Your task to perform on an android device: Search for Italian restaurants on Maps Image 0: 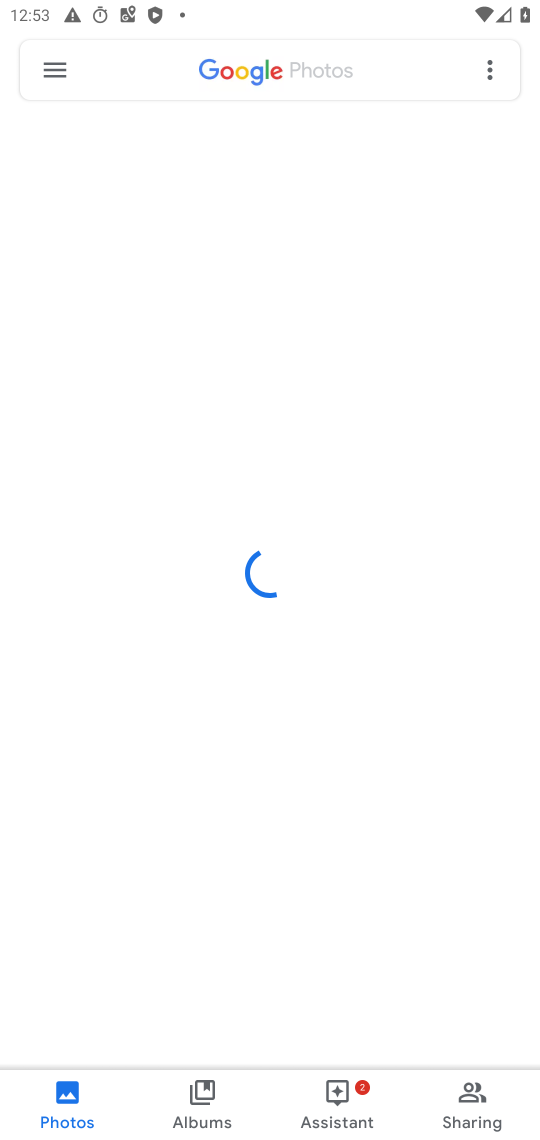
Step 0: press home button
Your task to perform on an android device: Search for Italian restaurants on Maps Image 1: 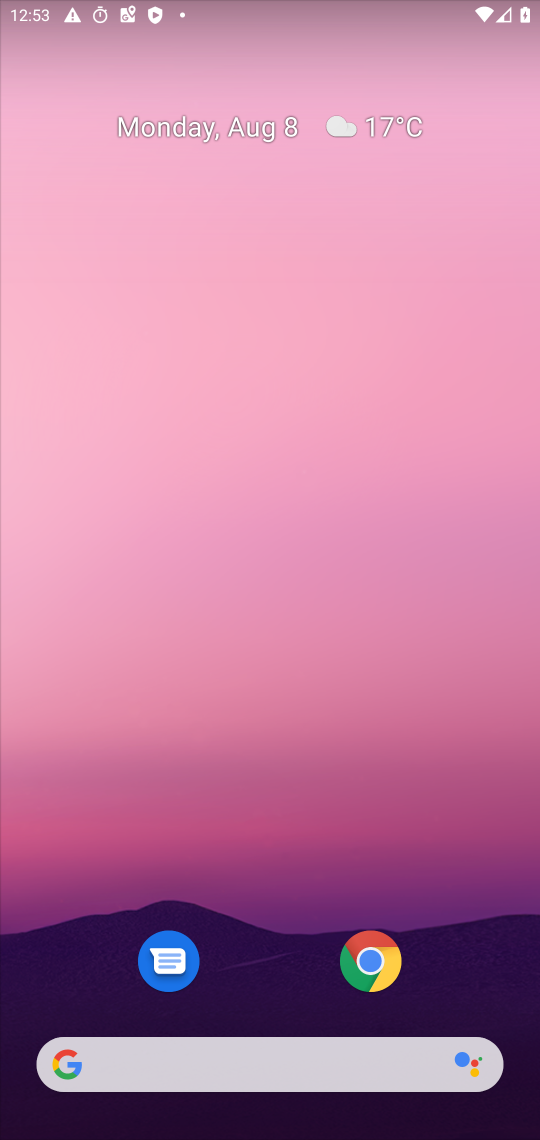
Step 1: drag from (232, 1028) to (261, 5)
Your task to perform on an android device: Search for Italian restaurants on Maps Image 2: 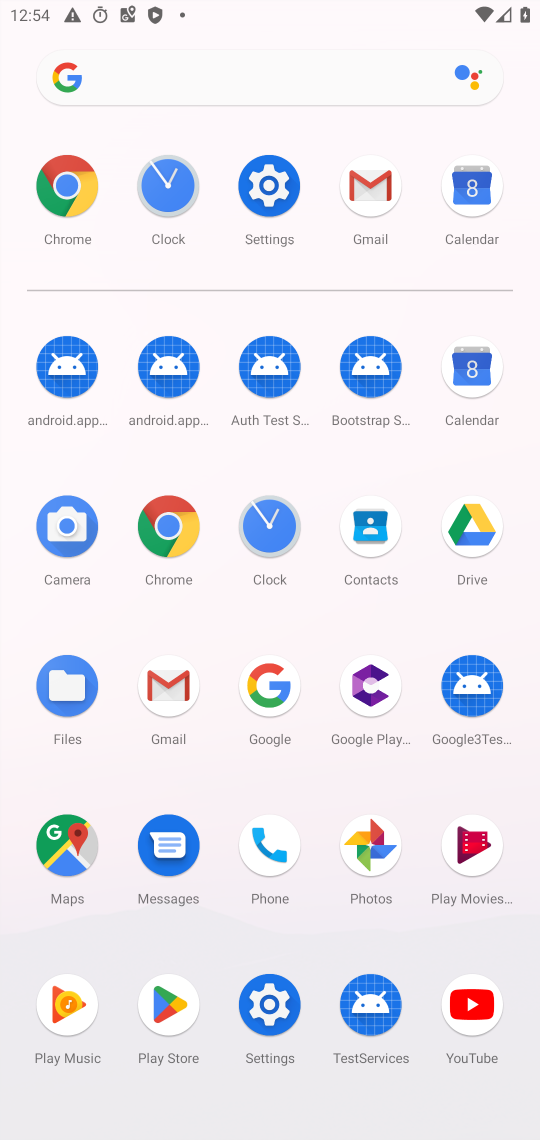
Step 2: click (85, 863)
Your task to perform on an android device: Search for Italian restaurants on Maps Image 3: 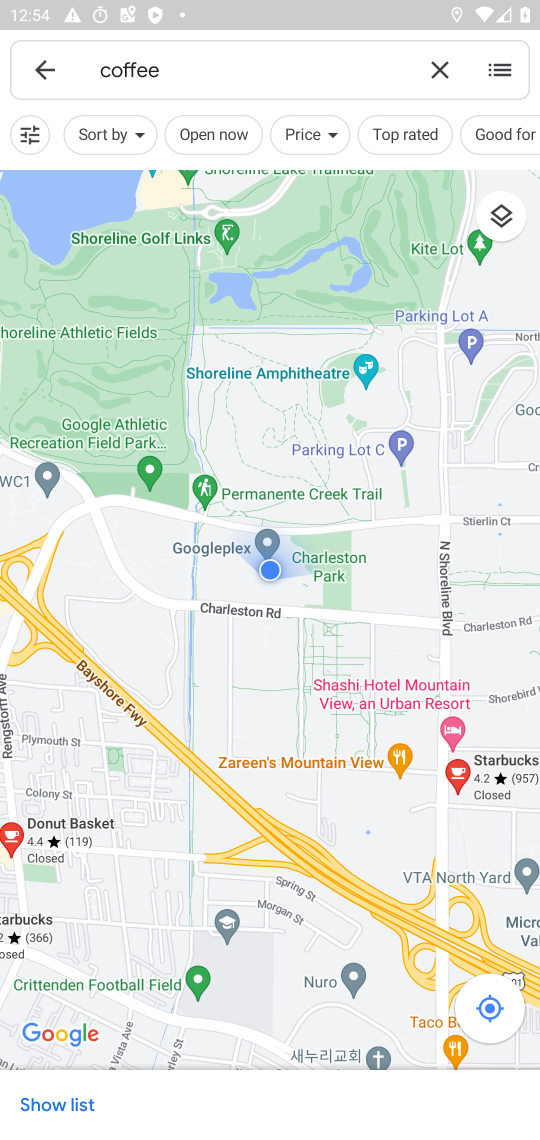
Step 3: click (439, 60)
Your task to perform on an android device: Search for Italian restaurants on Maps Image 4: 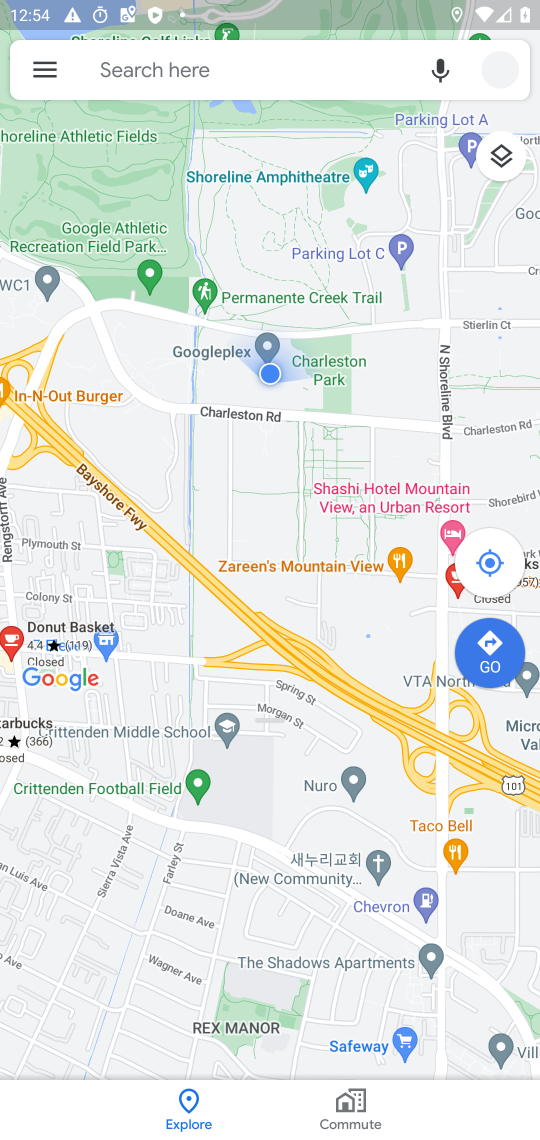
Step 4: click (304, 62)
Your task to perform on an android device: Search for Italian restaurants on Maps Image 5: 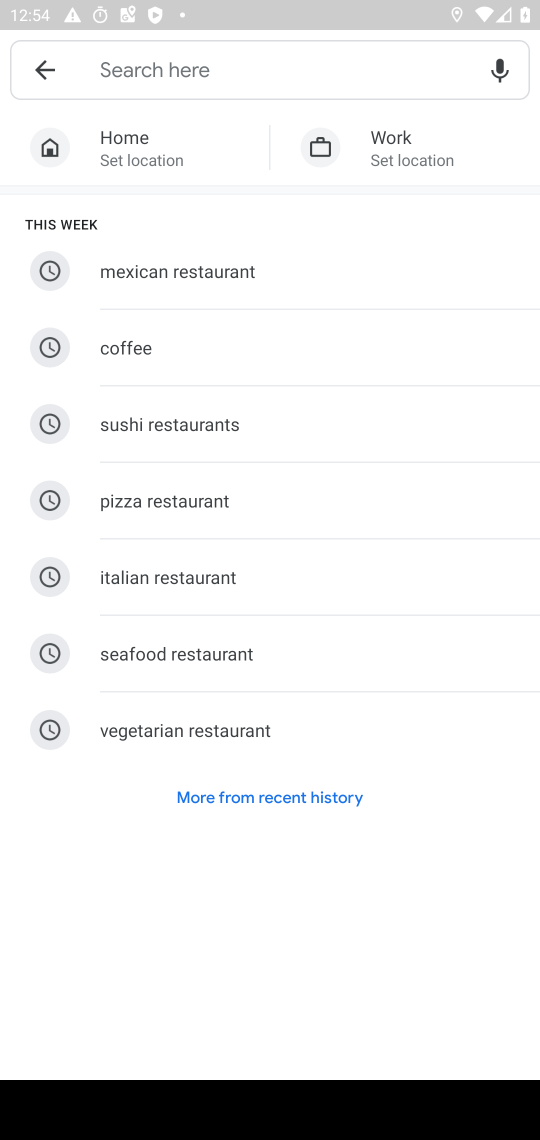
Step 5: click (193, 569)
Your task to perform on an android device: Search for Italian restaurants on Maps Image 6: 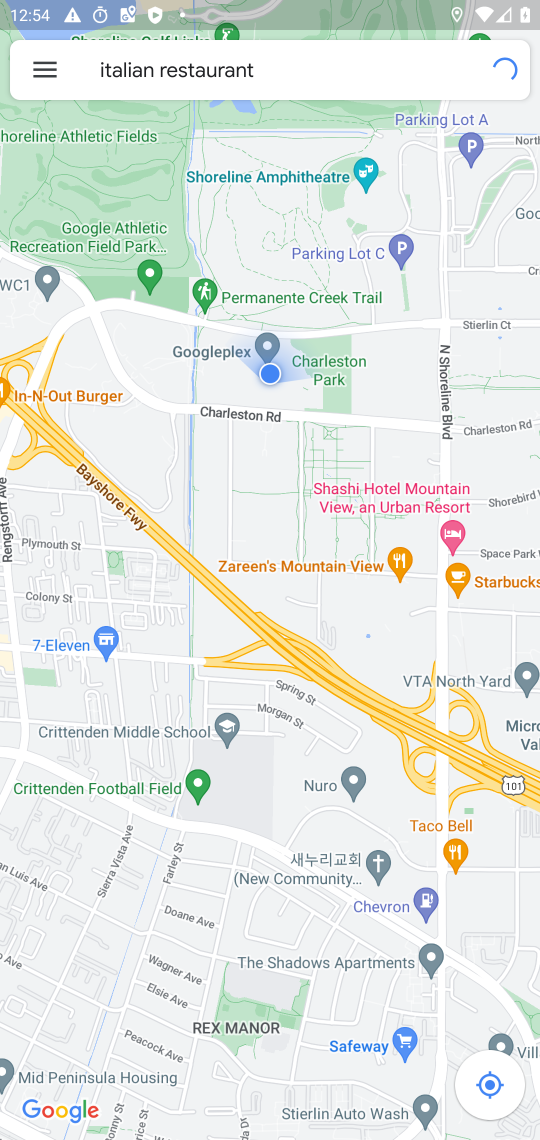
Step 6: task complete